Your task to perform on an android device: change the clock style Image 0: 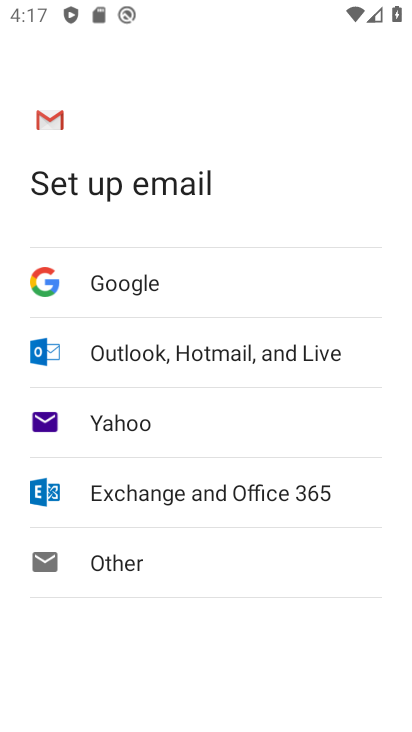
Step 0: press home button
Your task to perform on an android device: change the clock style Image 1: 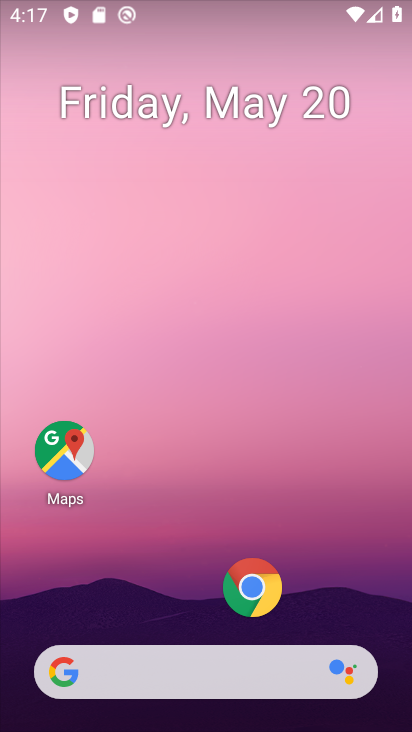
Step 1: drag from (152, 629) to (247, 92)
Your task to perform on an android device: change the clock style Image 2: 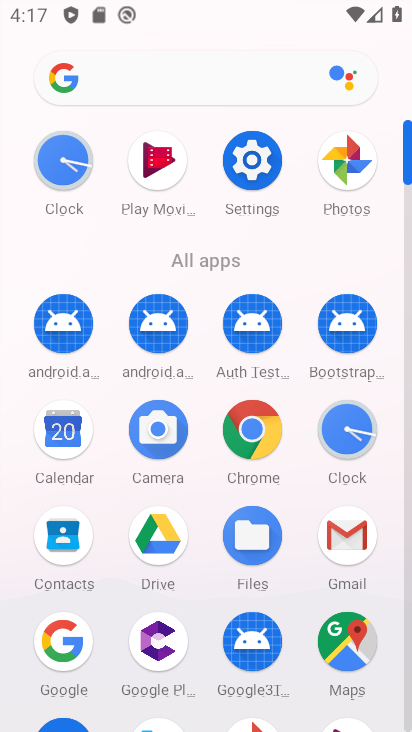
Step 2: click (77, 152)
Your task to perform on an android device: change the clock style Image 3: 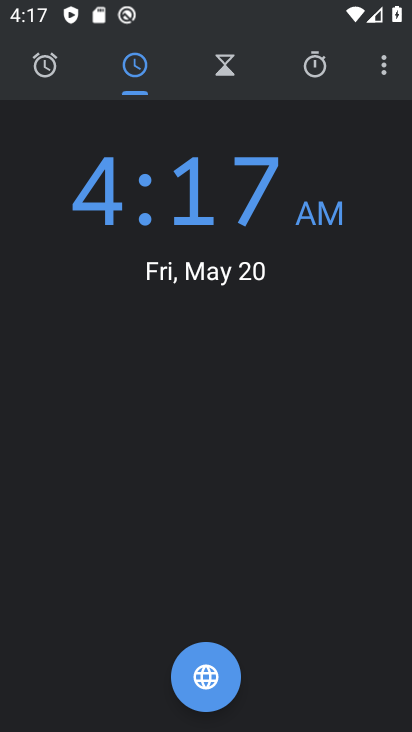
Step 3: click (375, 70)
Your task to perform on an android device: change the clock style Image 4: 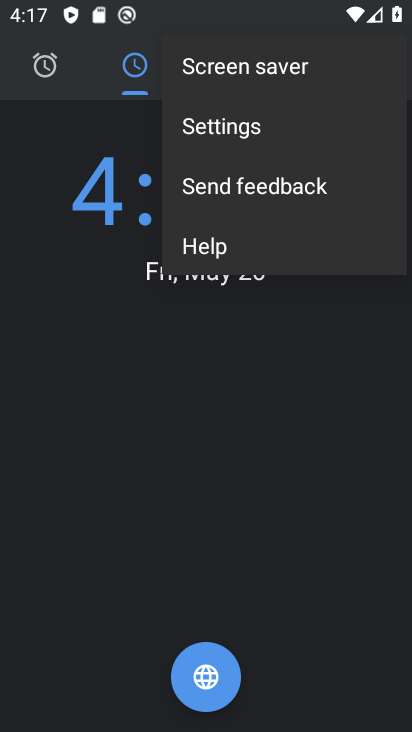
Step 4: click (313, 126)
Your task to perform on an android device: change the clock style Image 5: 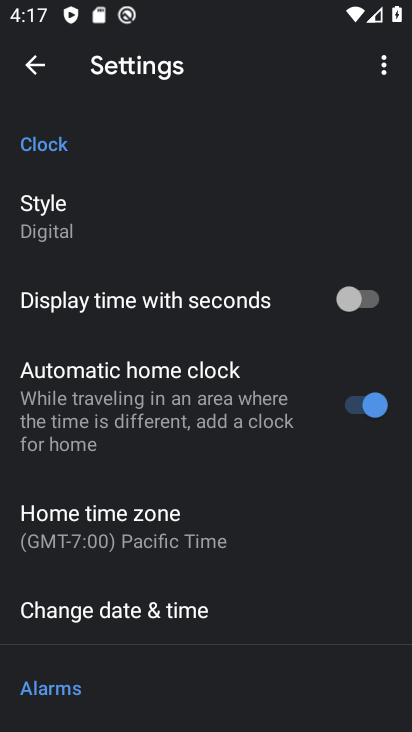
Step 5: click (121, 222)
Your task to perform on an android device: change the clock style Image 6: 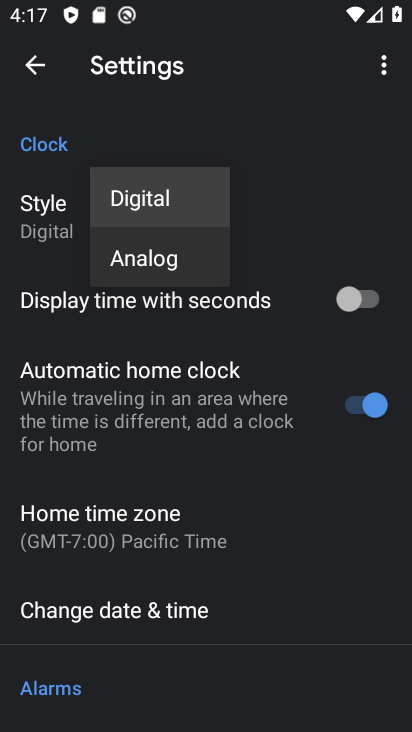
Step 6: click (182, 268)
Your task to perform on an android device: change the clock style Image 7: 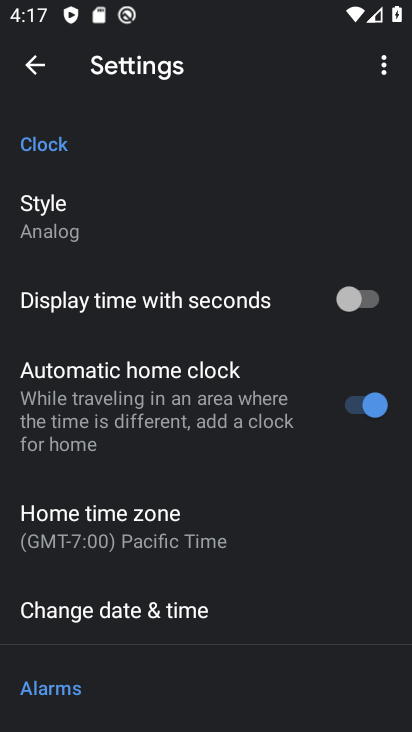
Step 7: task complete